Your task to perform on an android device: turn on sleep mode Image 0: 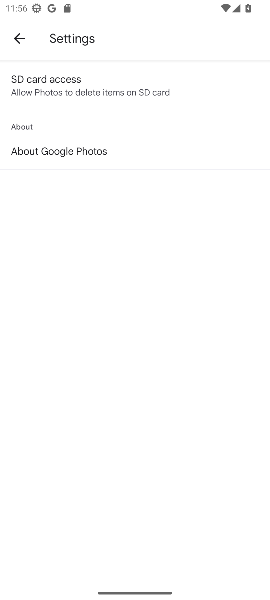
Step 0: press home button
Your task to perform on an android device: turn on sleep mode Image 1: 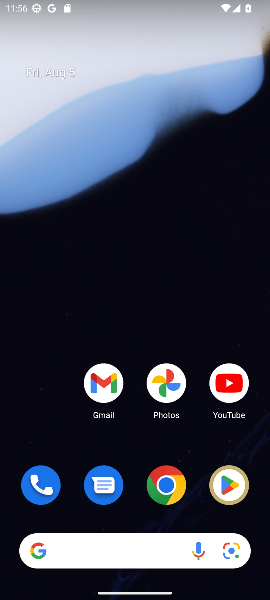
Step 1: drag from (68, 447) to (73, 26)
Your task to perform on an android device: turn on sleep mode Image 2: 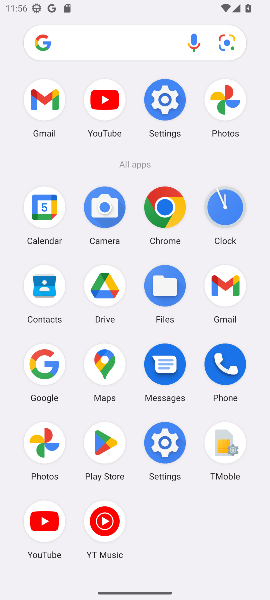
Step 2: click (162, 106)
Your task to perform on an android device: turn on sleep mode Image 3: 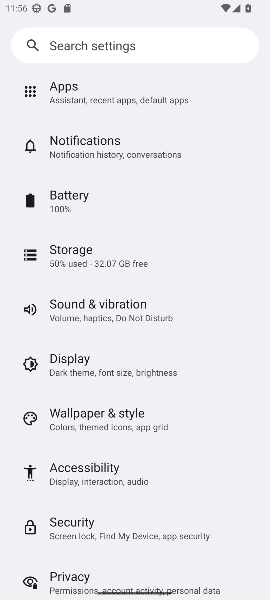
Step 3: click (84, 362)
Your task to perform on an android device: turn on sleep mode Image 4: 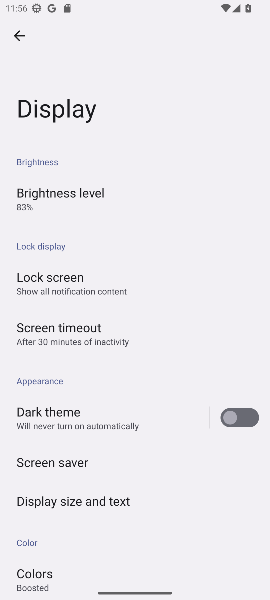
Step 4: click (84, 362)
Your task to perform on an android device: turn on sleep mode Image 5: 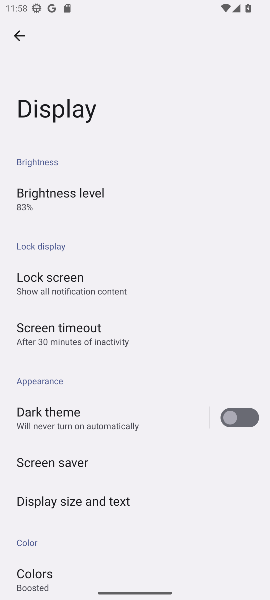
Step 5: task complete